Your task to perform on an android device: find which apps use the phone's location Image 0: 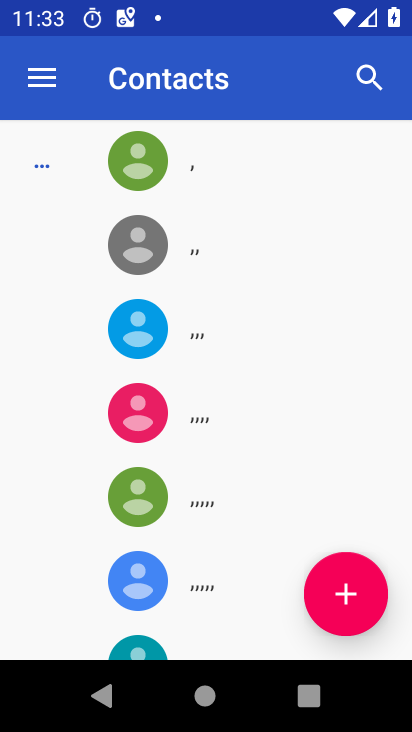
Step 0: press home button
Your task to perform on an android device: find which apps use the phone's location Image 1: 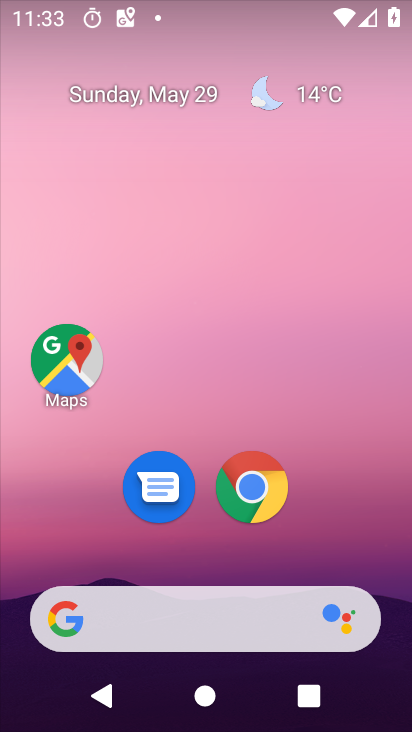
Step 1: drag from (401, 666) to (309, 230)
Your task to perform on an android device: find which apps use the phone's location Image 2: 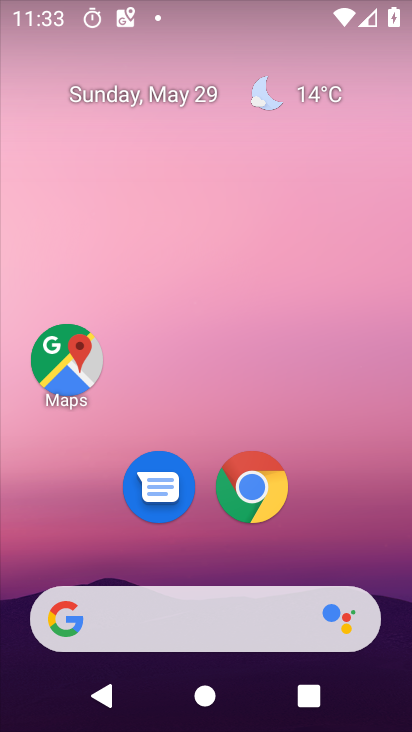
Step 2: drag from (383, 684) to (223, 22)
Your task to perform on an android device: find which apps use the phone's location Image 3: 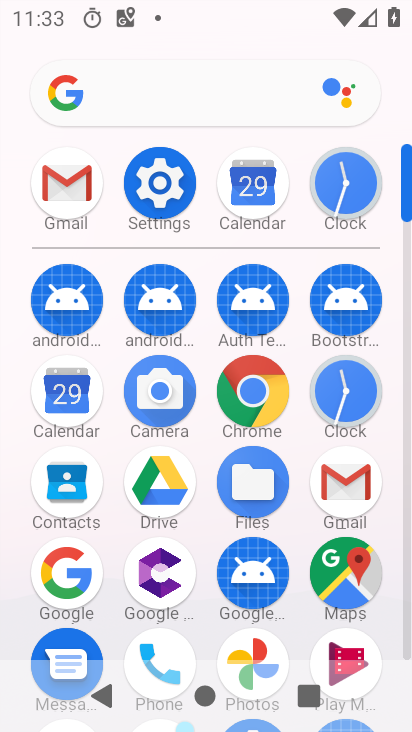
Step 3: click (177, 161)
Your task to perform on an android device: find which apps use the phone's location Image 4: 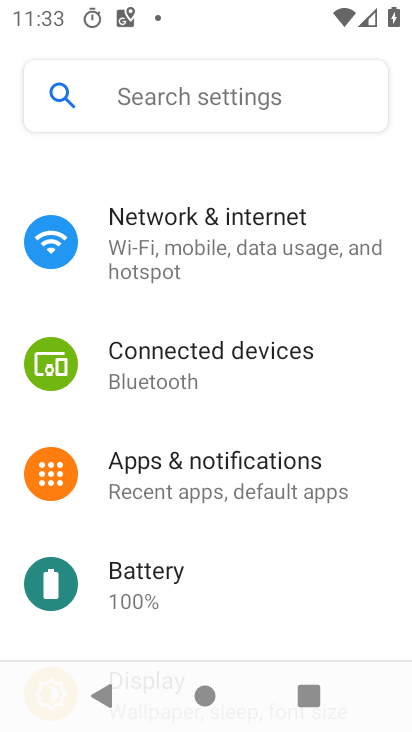
Step 4: drag from (177, 160) to (385, 437)
Your task to perform on an android device: find which apps use the phone's location Image 5: 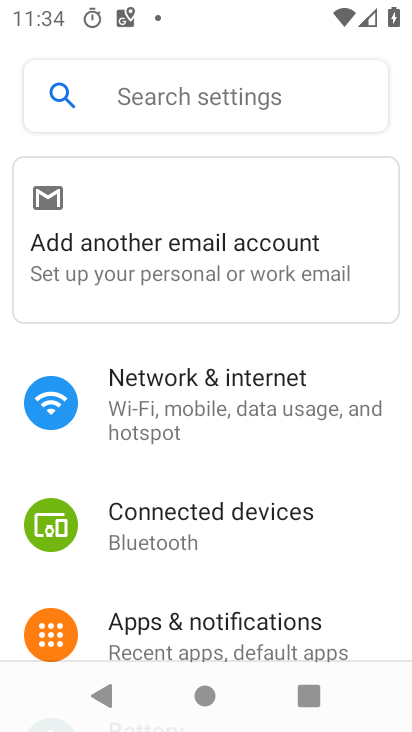
Step 5: drag from (296, 626) to (326, 407)
Your task to perform on an android device: find which apps use the phone's location Image 6: 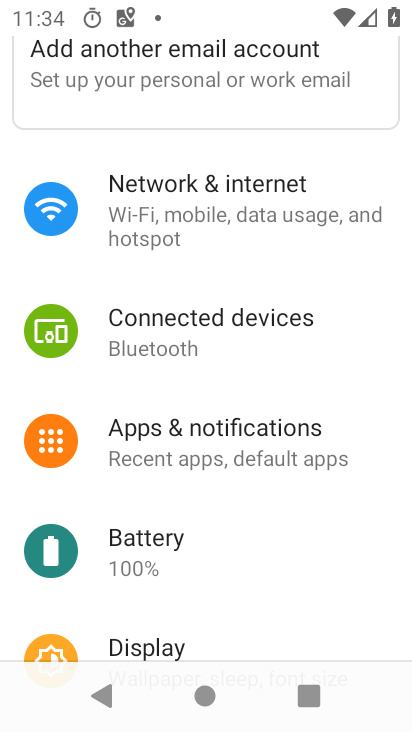
Step 6: drag from (301, 389) to (291, 355)
Your task to perform on an android device: find which apps use the phone's location Image 7: 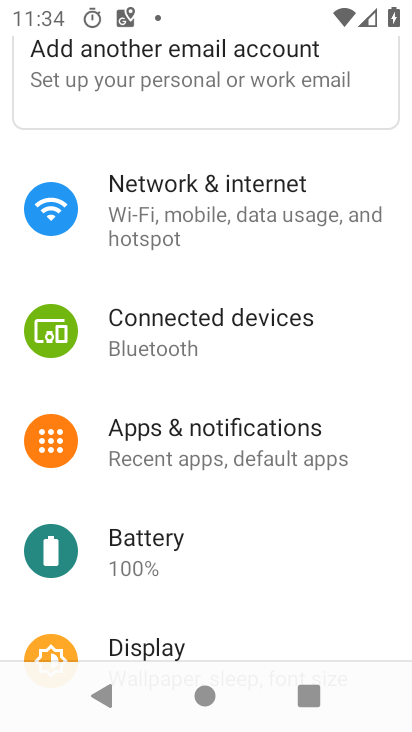
Step 7: drag from (300, 600) to (298, 305)
Your task to perform on an android device: find which apps use the phone's location Image 8: 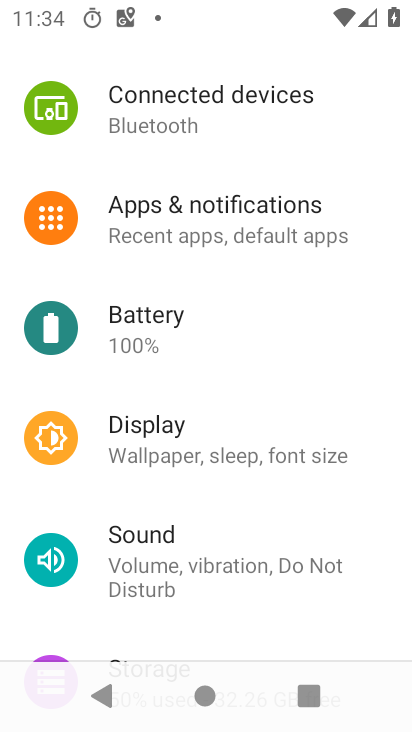
Step 8: drag from (279, 603) to (365, 326)
Your task to perform on an android device: find which apps use the phone's location Image 9: 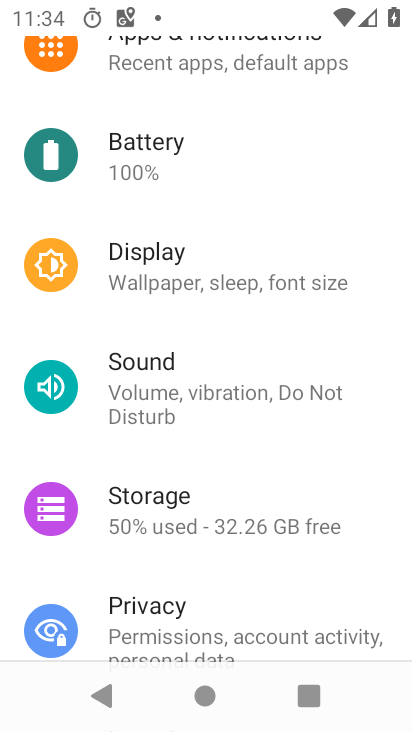
Step 9: drag from (300, 597) to (315, 454)
Your task to perform on an android device: find which apps use the phone's location Image 10: 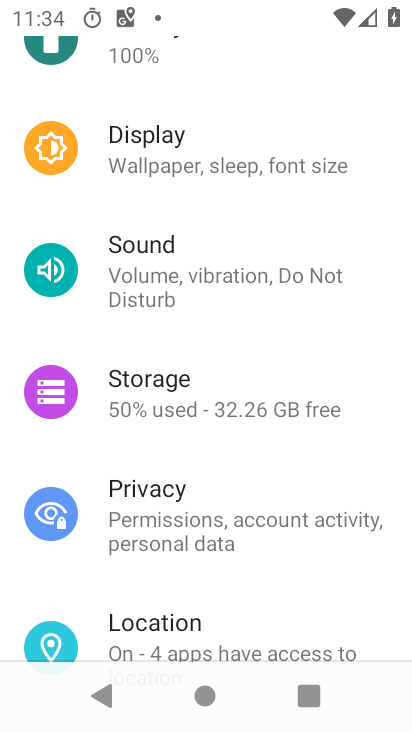
Step 10: click (193, 628)
Your task to perform on an android device: find which apps use the phone's location Image 11: 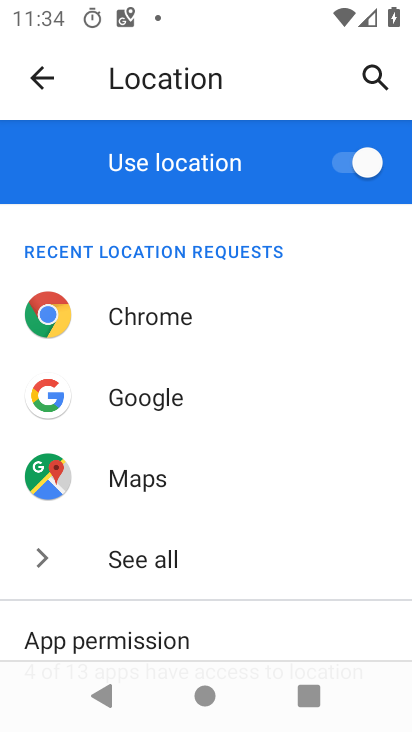
Step 11: drag from (284, 591) to (242, 338)
Your task to perform on an android device: find which apps use the phone's location Image 12: 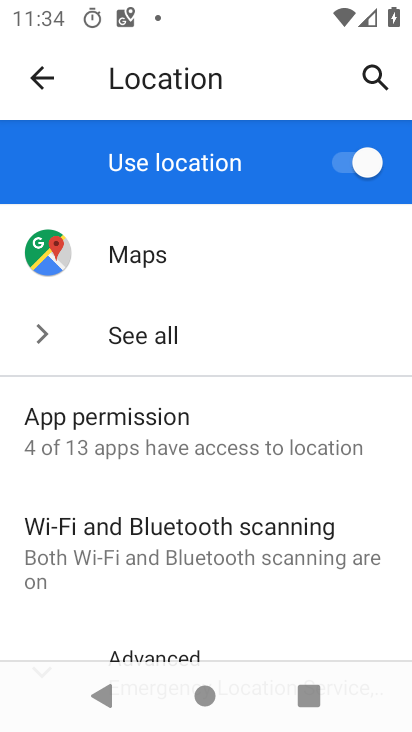
Step 12: click (82, 436)
Your task to perform on an android device: find which apps use the phone's location Image 13: 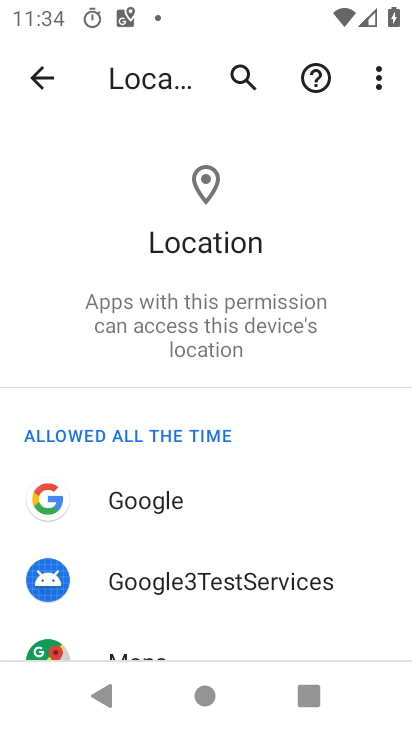
Step 13: task complete